Your task to perform on an android device: change notifications settings Image 0: 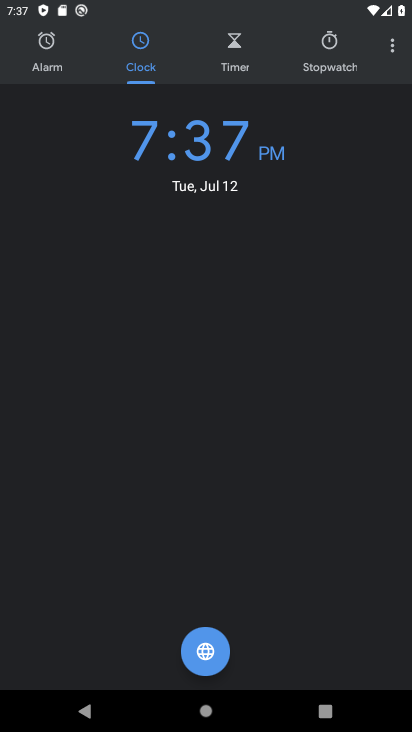
Step 0: press home button
Your task to perform on an android device: change notifications settings Image 1: 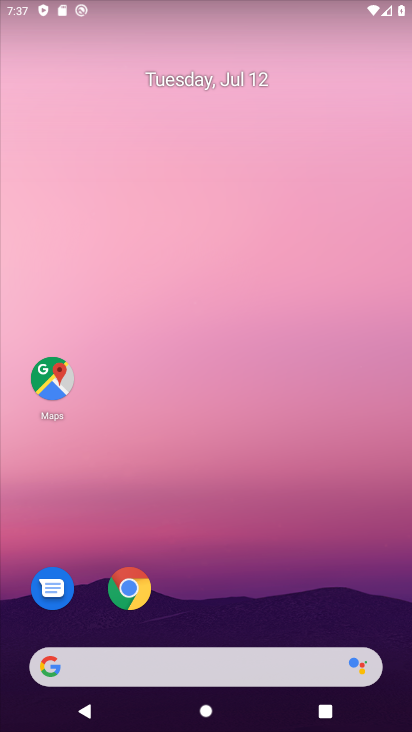
Step 1: drag from (261, 599) to (286, 2)
Your task to perform on an android device: change notifications settings Image 2: 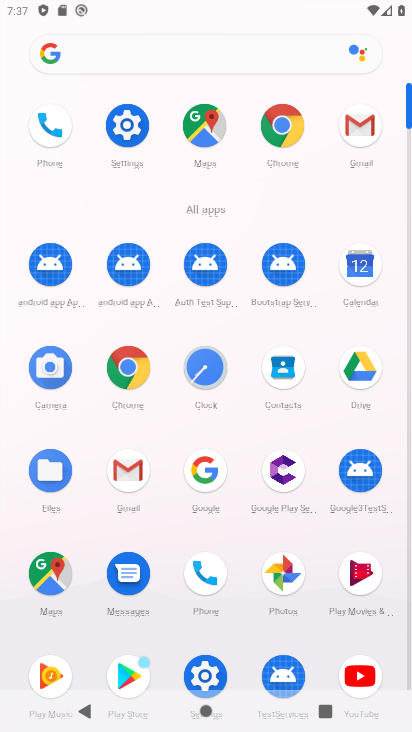
Step 2: click (136, 164)
Your task to perform on an android device: change notifications settings Image 3: 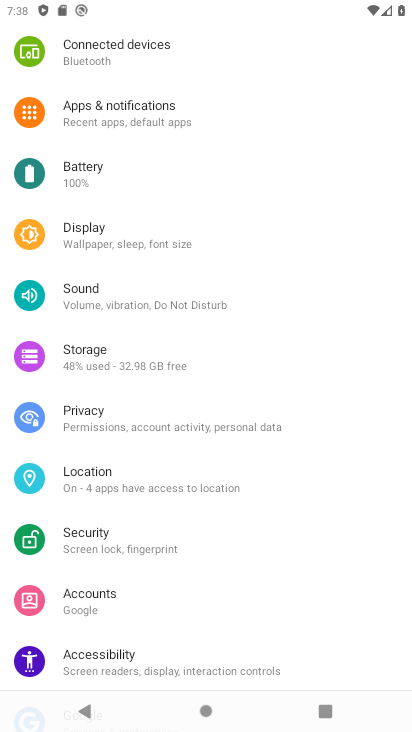
Step 3: click (140, 114)
Your task to perform on an android device: change notifications settings Image 4: 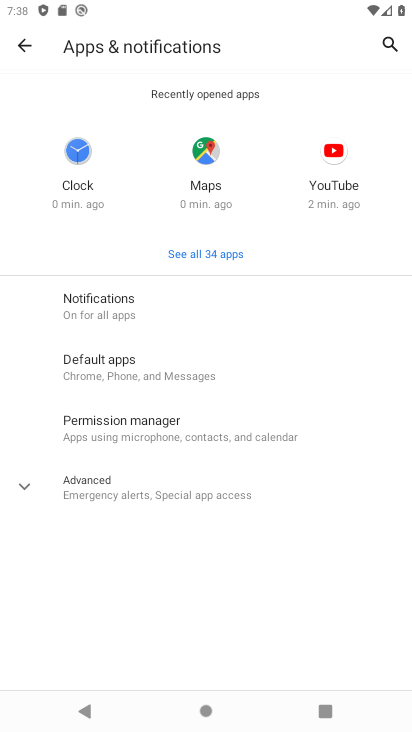
Step 4: click (123, 285)
Your task to perform on an android device: change notifications settings Image 5: 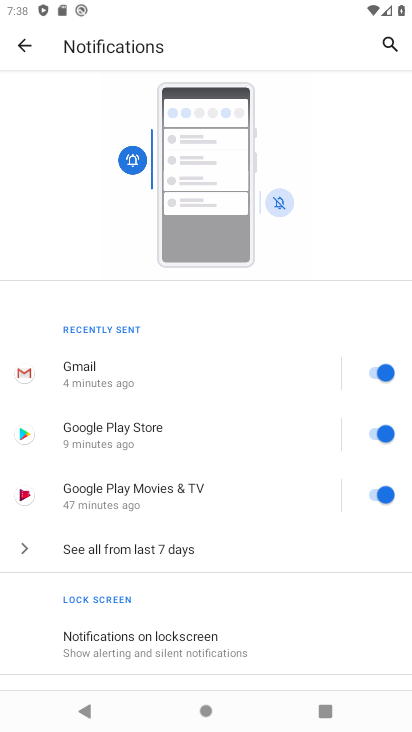
Step 5: task complete